Your task to perform on an android device: turn on translation in the chrome app Image 0: 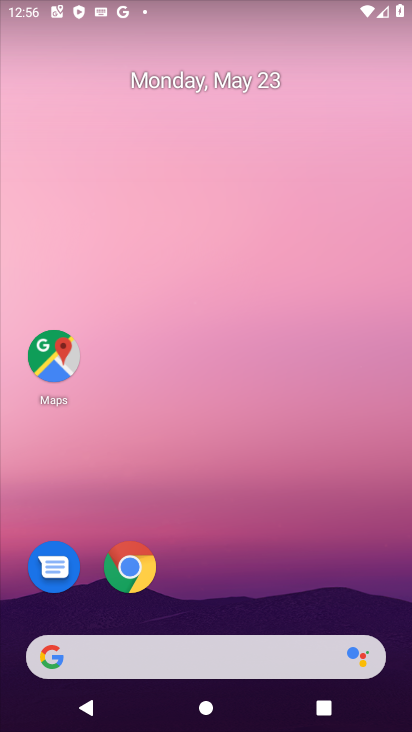
Step 0: drag from (250, 611) to (336, 13)
Your task to perform on an android device: turn on translation in the chrome app Image 1: 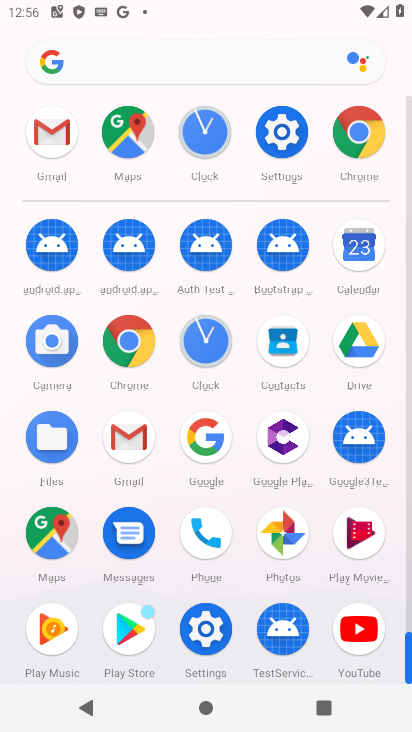
Step 1: click (367, 139)
Your task to perform on an android device: turn on translation in the chrome app Image 2: 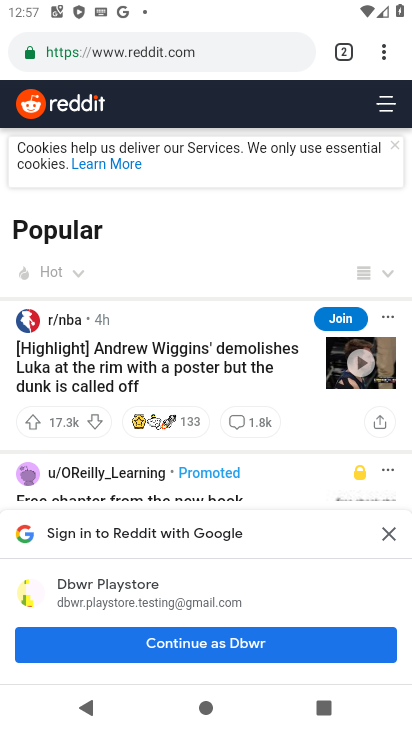
Step 2: click (389, 57)
Your task to perform on an android device: turn on translation in the chrome app Image 3: 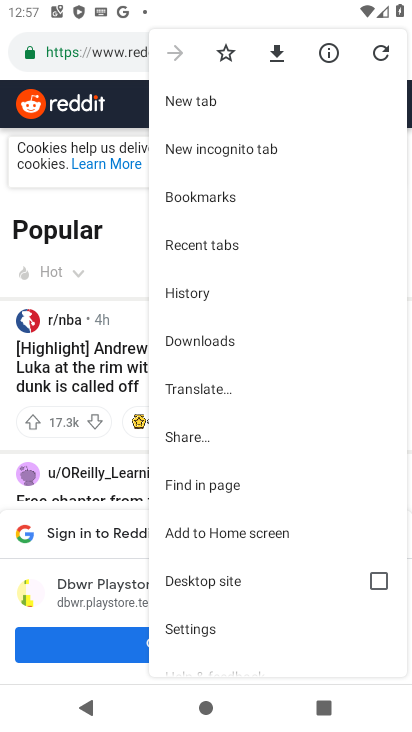
Step 3: click (208, 633)
Your task to perform on an android device: turn on translation in the chrome app Image 4: 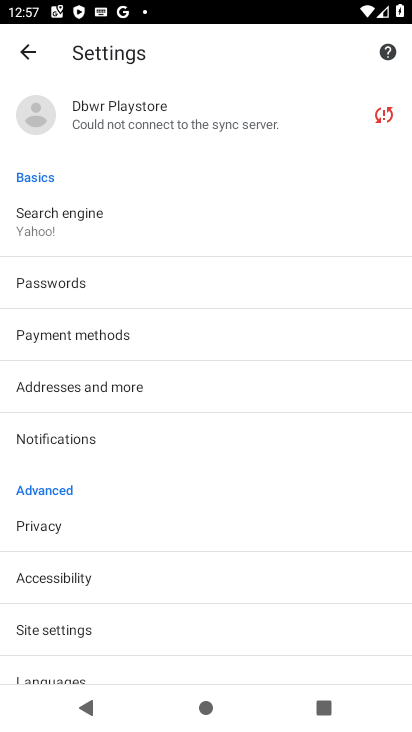
Step 4: click (108, 679)
Your task to perform on an android device: turn on translation in the chrome app Image 5: 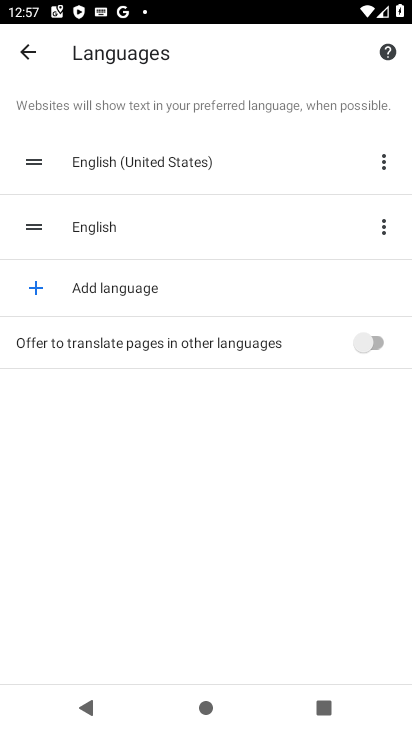
Step 5: click (377, 344)
Your task to perform on an android device: turn on translation in the chrome app Image 6: 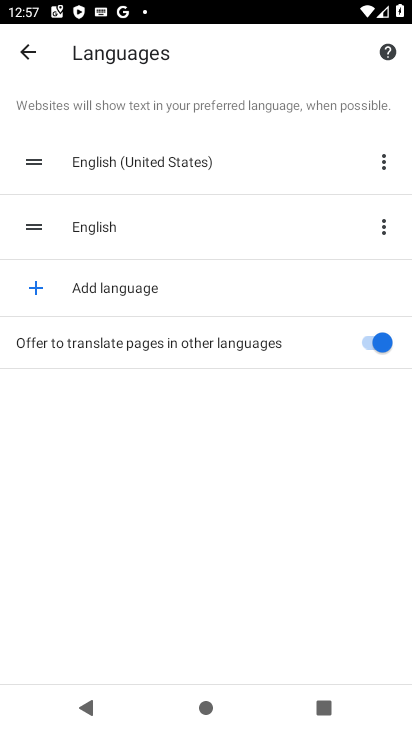
Step 6: task complete